Your task to perform on an android device: When is my next appointment? Image 0: 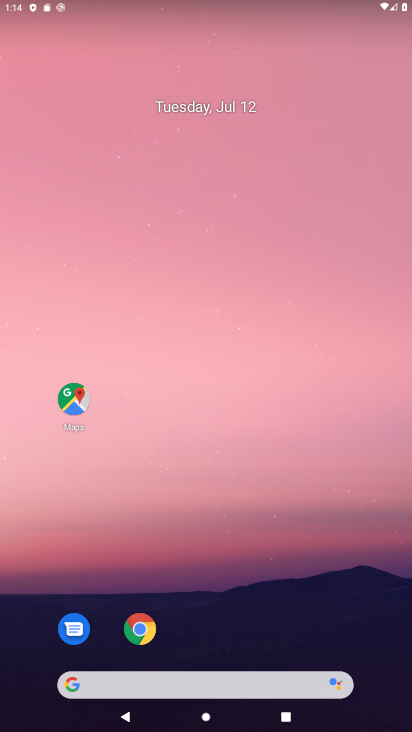
Step 0: click (214, 59)
Your task to perform on an android device: When is my next appointment? Image 1: 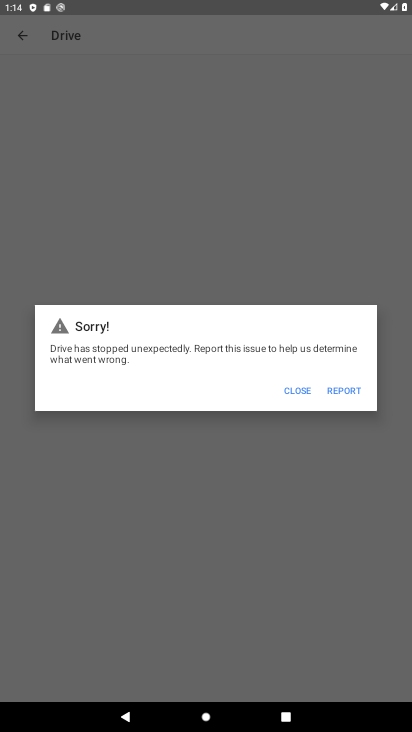
Step 1: press home button
Your task to perform on an android device: When is my next appointment? Image 2: 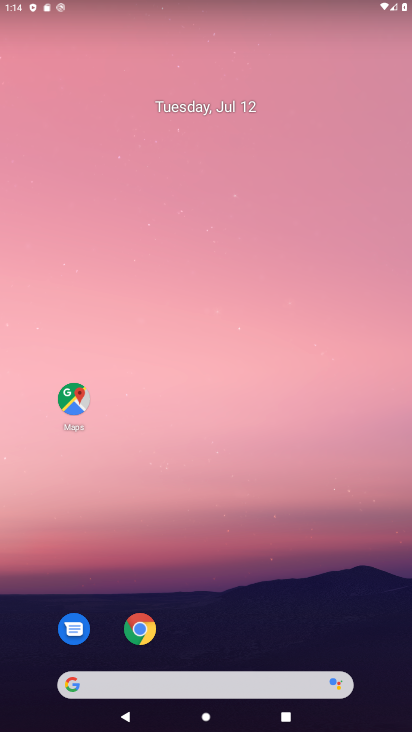
Step 2: drag from (202, 589) to (257, 233)
Your task to perform on an android device: When is my next appointment? Image 3: 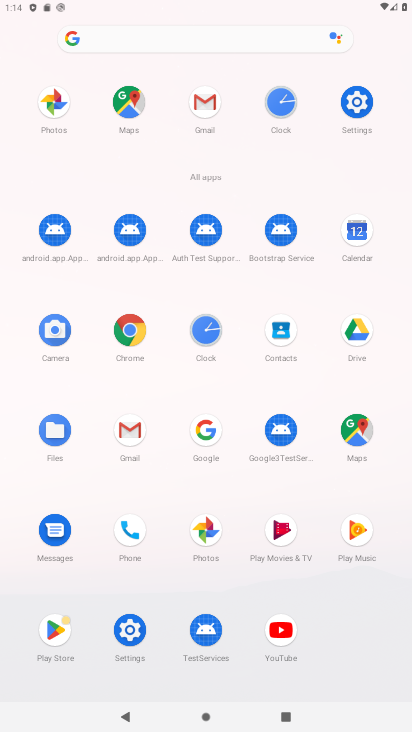
Step 3: click (364, 237)
Your task to perform on an android device: When is my next appointment? Image 4: 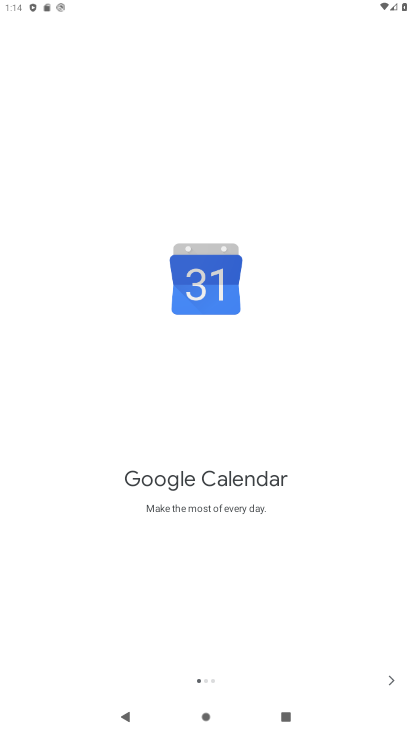
Step 4: click (390, 678)
Your task to perform on an android device: When is my next appointment? Image 5: 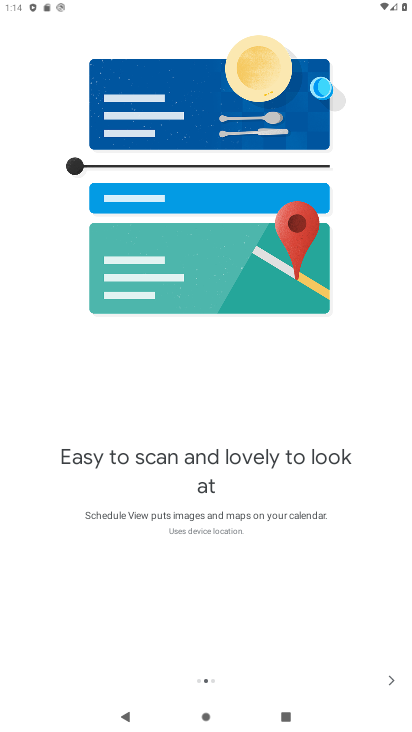
Step 5: click (390, 678)
Your task to perform on an android device: When is my next appointment? Image 6: 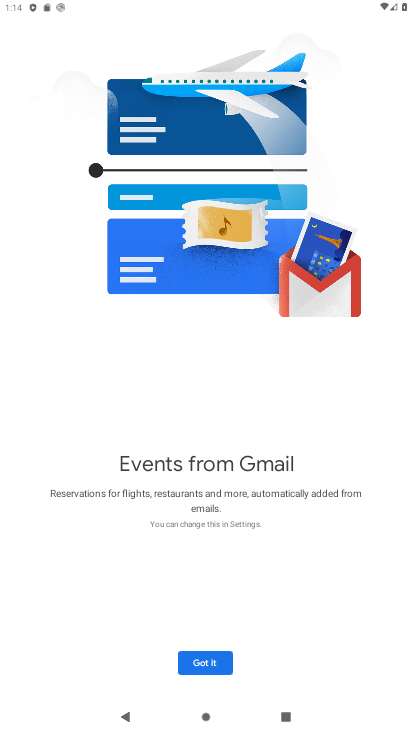
Step 6: click (198, 653)
Your task to perform on an android device: When is my next appointment? Image 7: 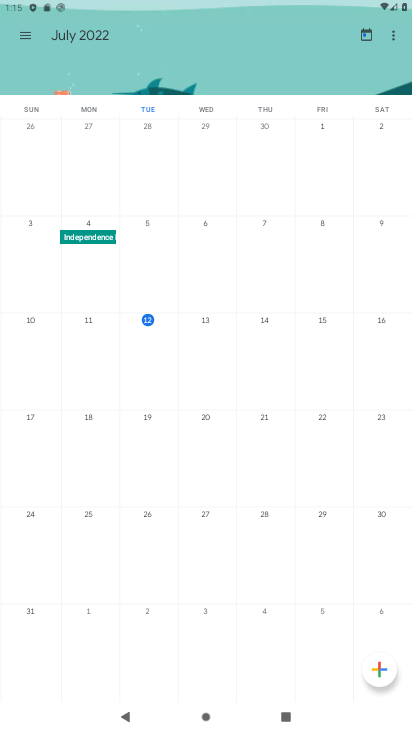
Step 7: task complete